Your task to perform on an android device: When is my next meeting? Image 0: 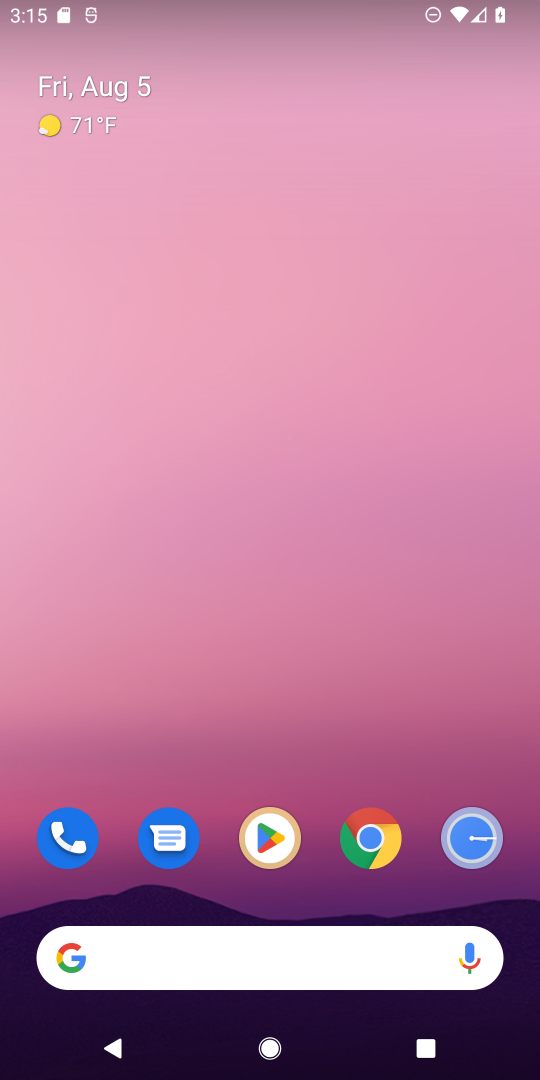
Step 0: drag from (413, 752) to (478, 15)
Your task to perform on an android device: When is my next meeting? Image 1: 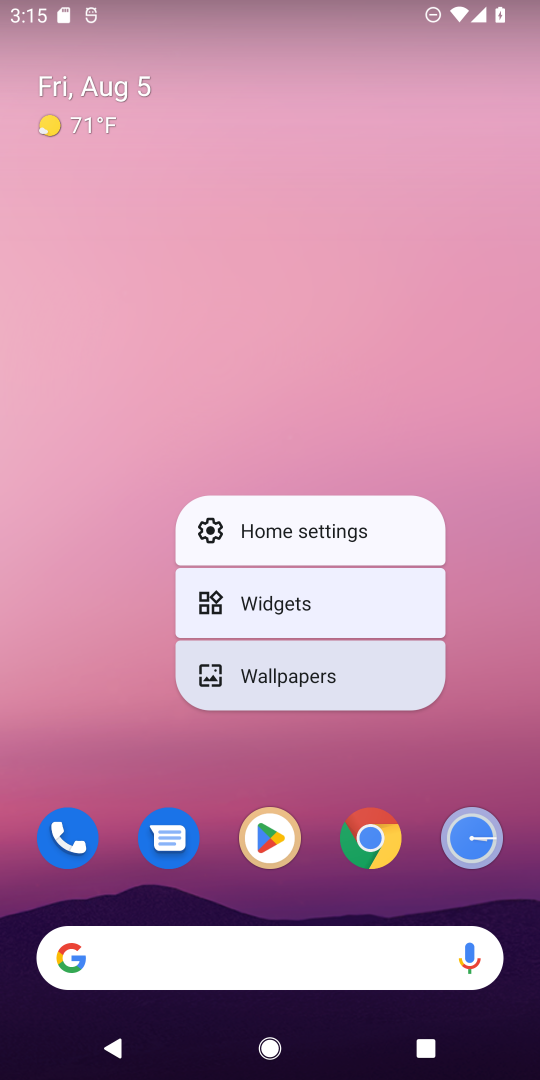
Step 1: drag from (514, 777) to (496, 343)
Your task to perform on an android device: When is my next meeting? Image 2: 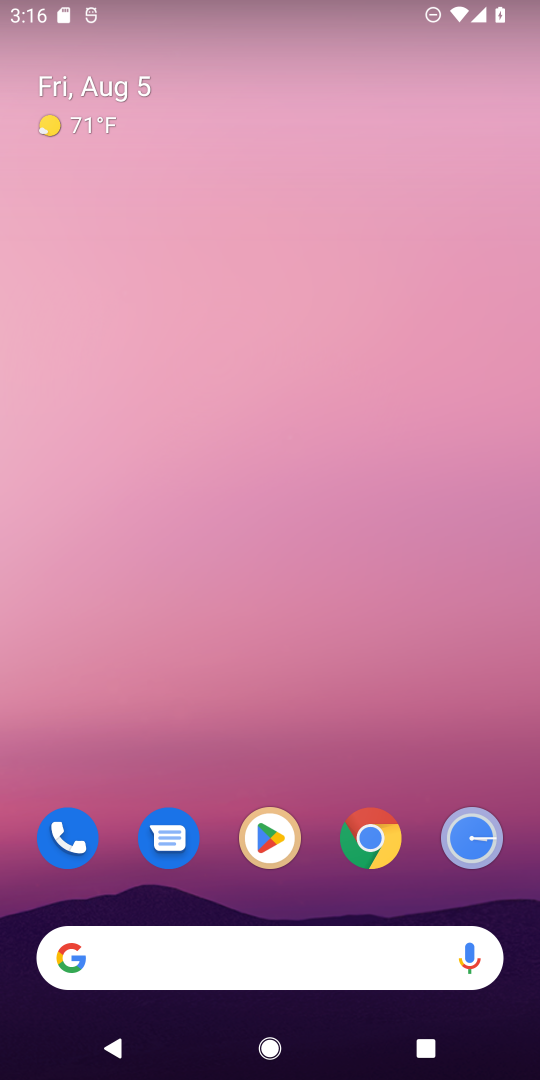
Step 2: drag from (428, 908) to (352, 98)
Your task to perform on an android device: When is my next meeting? Image 3: 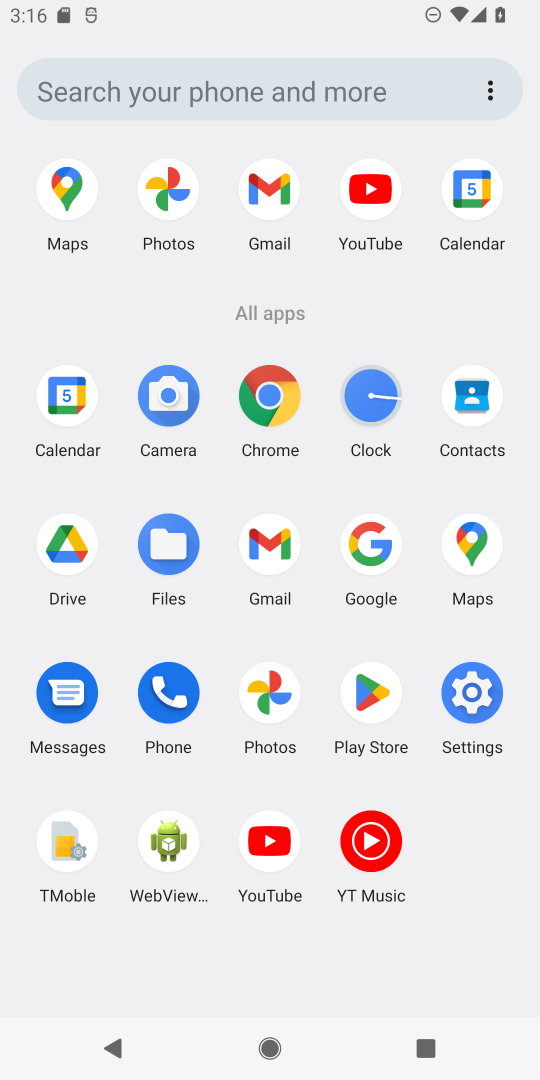
Step 3: click (475, 190)
Your task to perform on an android device: When is my next meeting? Image 4: 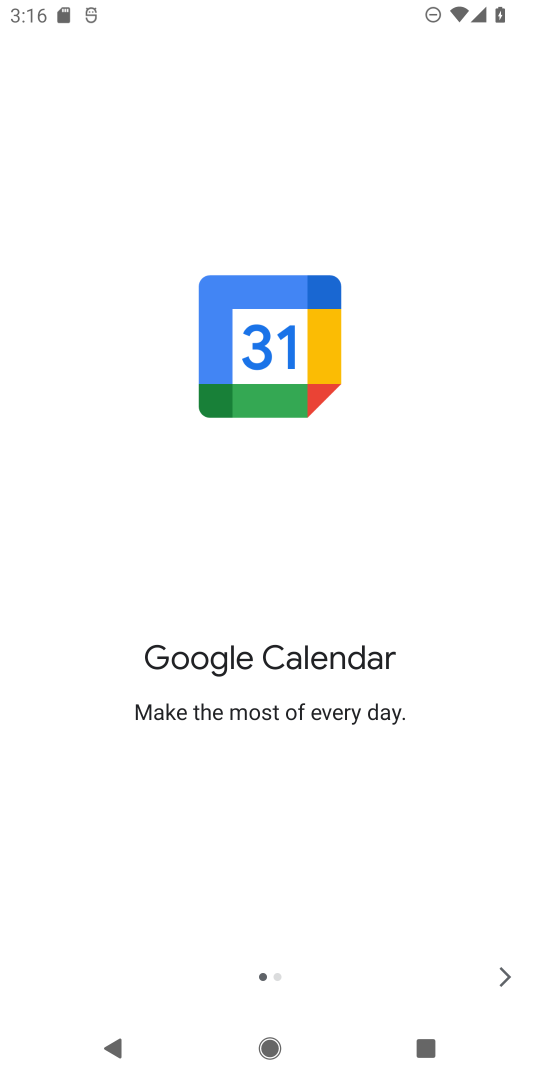
Step 4: click (500, 979)
Your task to perform on an android device: When is my next meeting? Image 5: 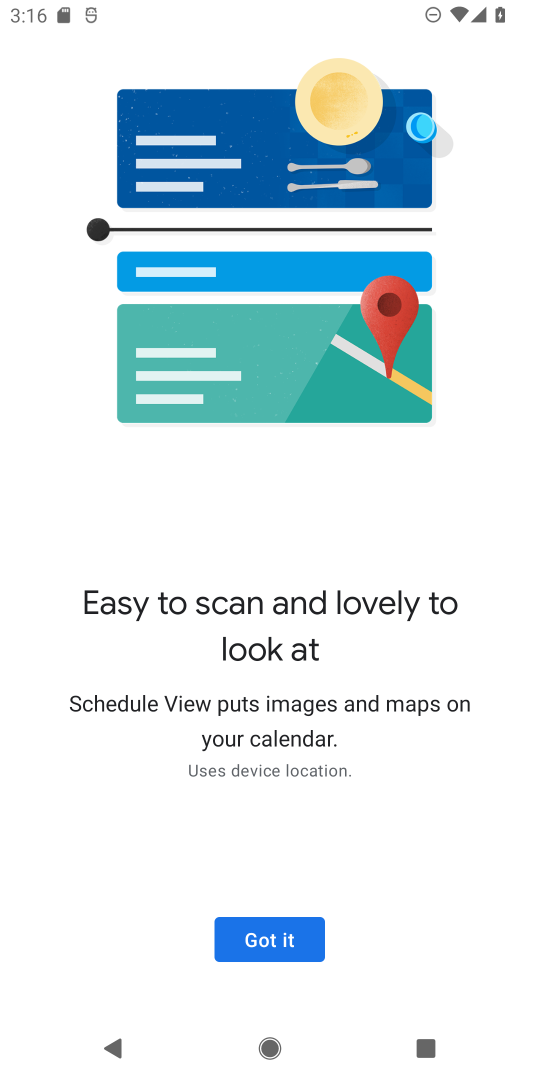
Step 5: click (500, 980)
Your task to perform on an android device: When is my next meeting? Image 6: 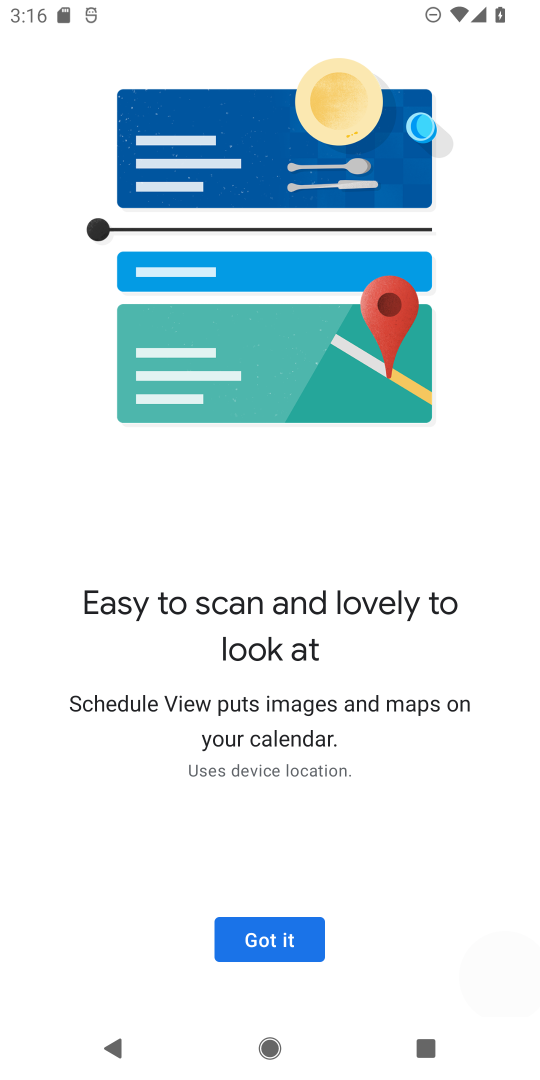
Step 6: click (248, 963)
Your task to perform on an android device: When is my next meeting? Image 7: 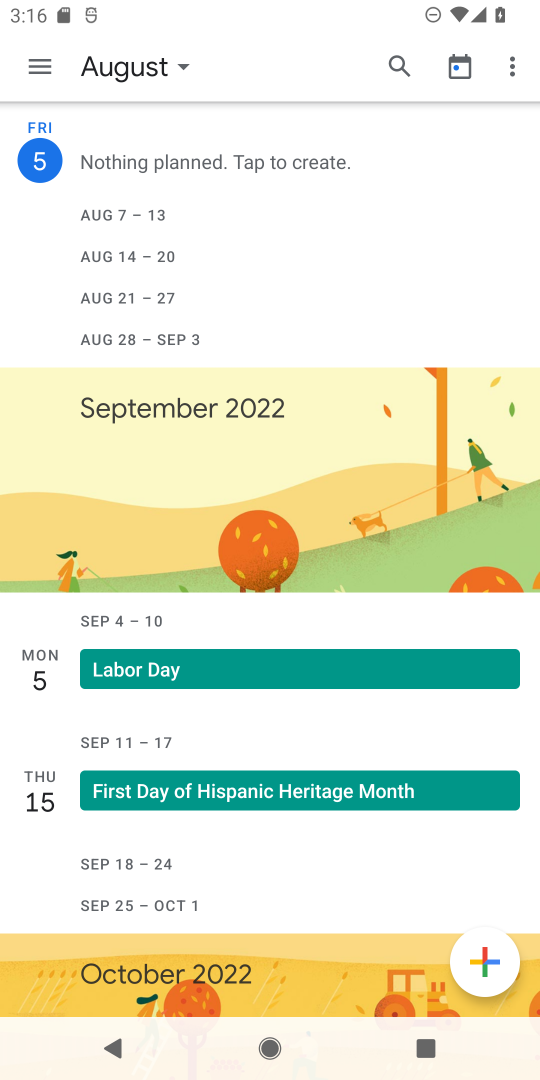
Step 7: task complete